Your task to perform on an android device: allow cookies in the chrome app Image 0: 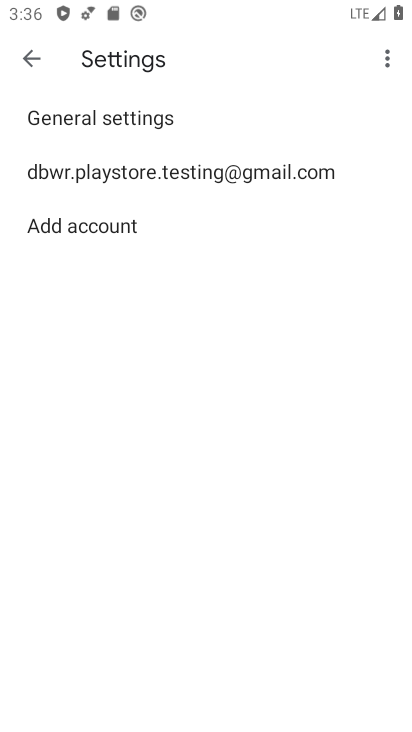
Step 0: press home button
Your task to perform on an android device: allow cookies in the chrome app Image 1: 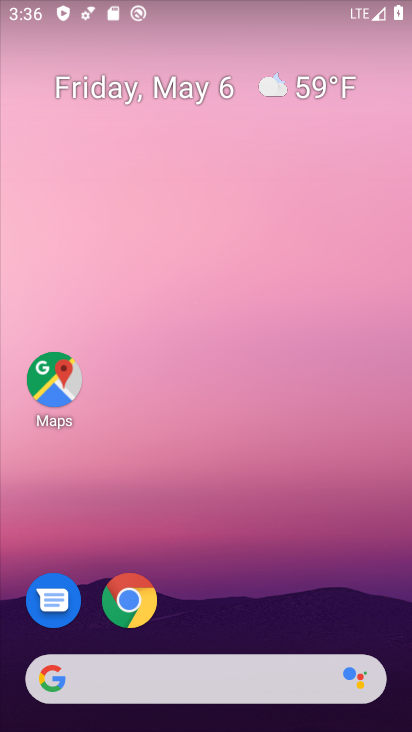
Step 1: click (130, 594)
Your task to perform on an android device: allow cookies in the chrome app Image 2: 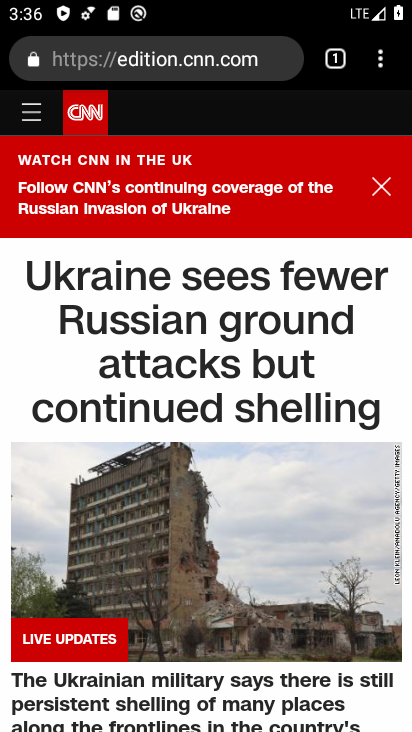
Step 2: click (385, 64)
Your task to perform on an android device: allow cookies in the chrome app Image 3: 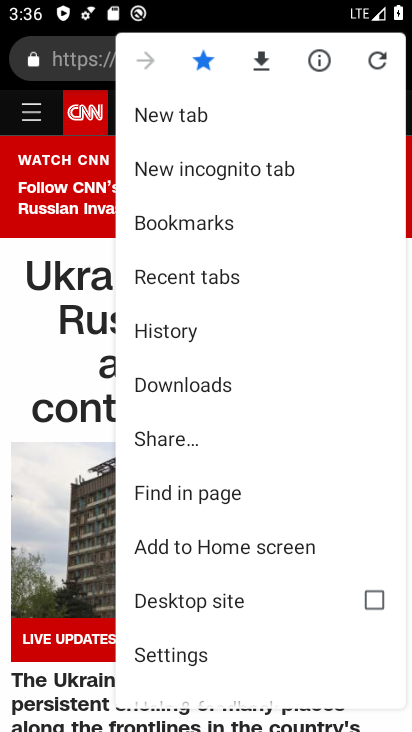
Step 3: click (156, 645)
Your task to perform on an android device: allow cookies in the chrome app Image 4: 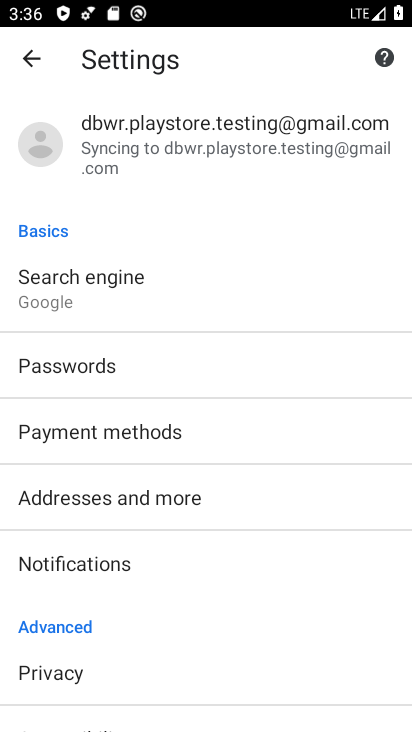
Step 4: drag from (99, 654) to (160, 242)
Your task to perform on an android device: allow cookies in the chrome app Image 5: 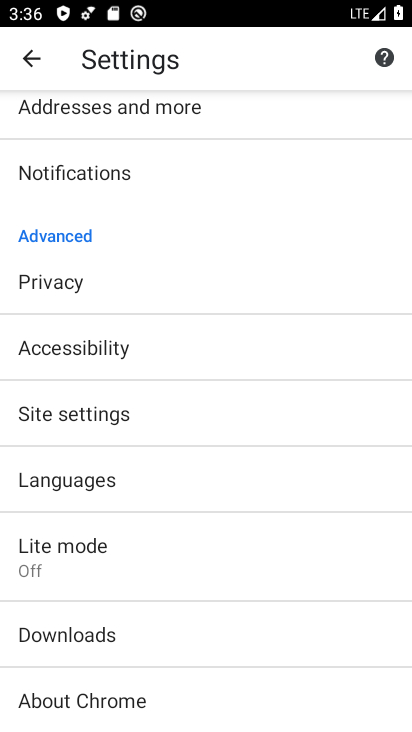
Step 5: click (91, 427)
Your task to perform on an android device: allow cookies in the chrome app Image 6: 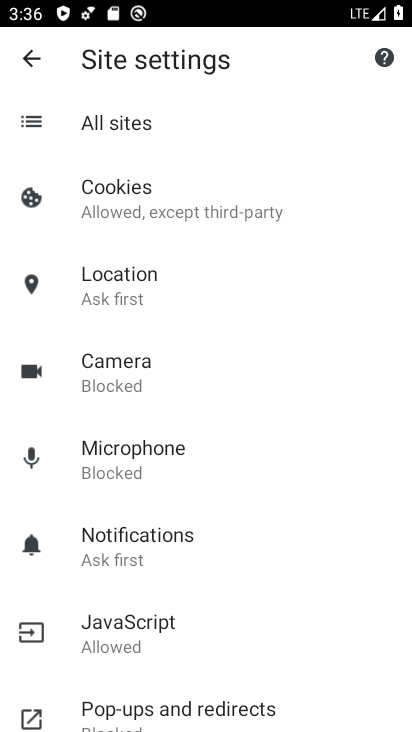
Step 6: drag from (148, 641) to (182, 389)
Your task to perform on an android device: allow cookies in the chrome app Image 7: 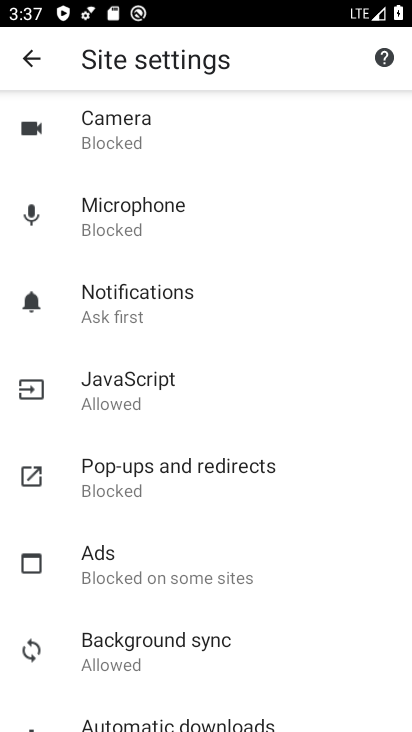
Step 7: drag from (134, 181) to (132, 677)
Your task to perform on an android device: allow cookies in the chrome app Image 8: 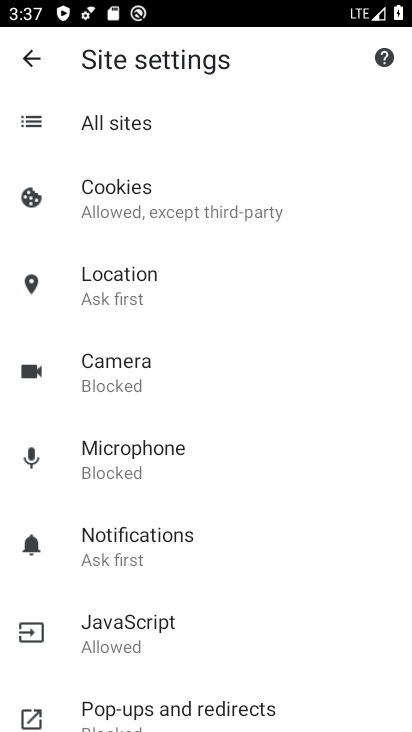
Step 8: click (115, 204)
Your task to perform on an android device: allow cookies in the chrome app Image 9: 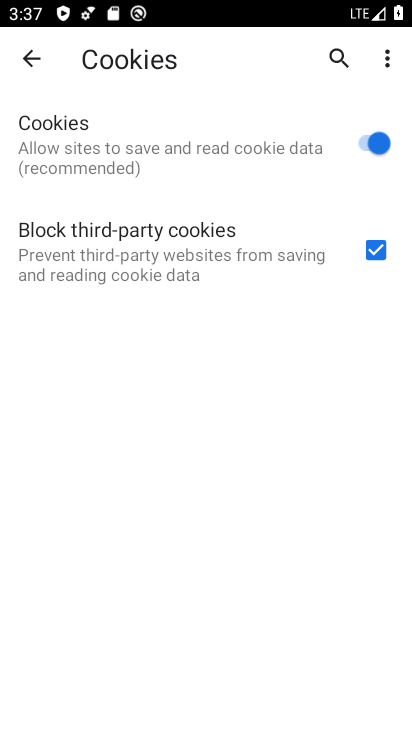
Step 9: task complete